Your task to perform on an android device: turn on the 12-hour format for clock Image 0: 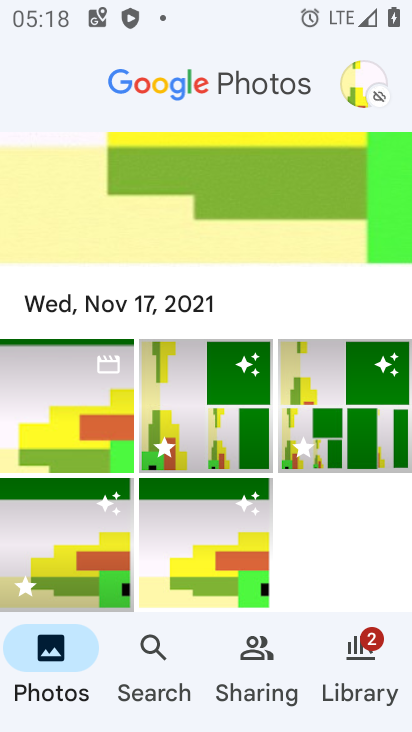
Step 0: press home button
Your task to perform on an android device: turn on the 12-hour format for clock Image 1: 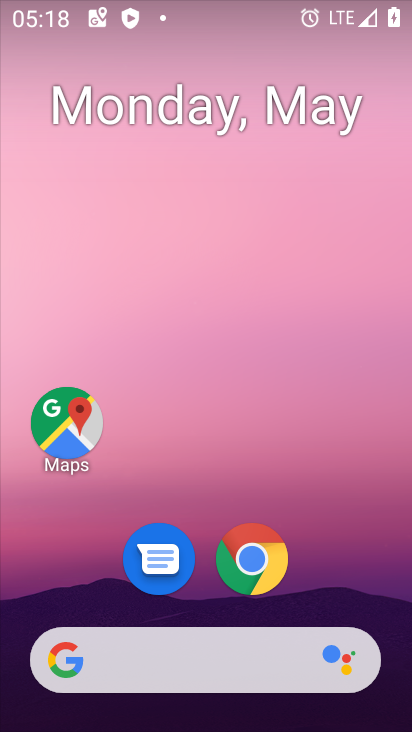
Step 1: drag from (308, 618) to (346, 50)
Your task to perform on an android device: turn on the 12-hour format for clock Image 2: 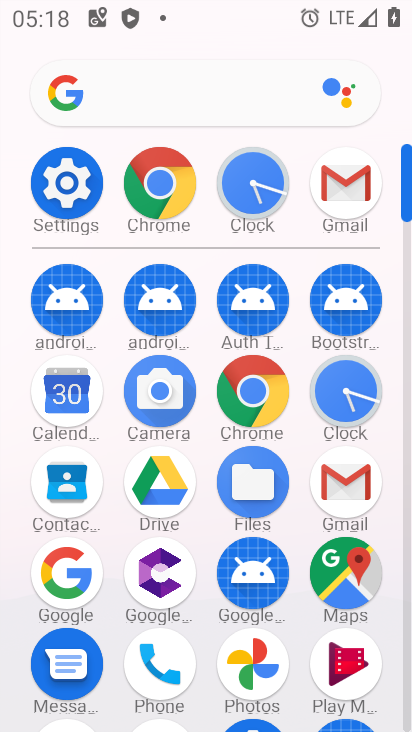
Step 2: click (360, 373)
Your task to perform on an android device: turn on the 12-hour format for clock Image 3: 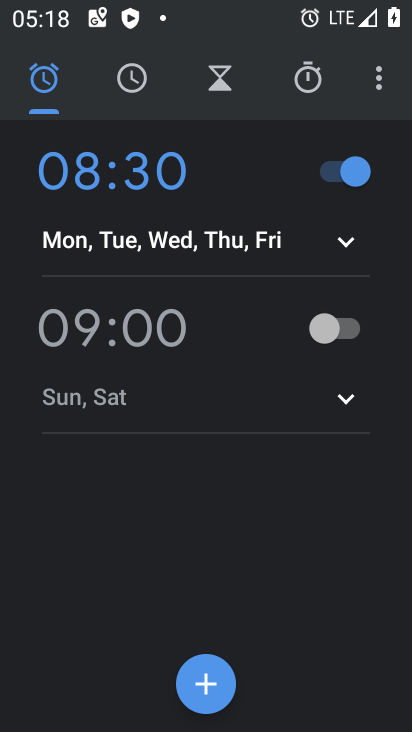
Step 3: click (381, 81)
Your task to perform on an android device: turn on the 12-hour format for clock Image 4: 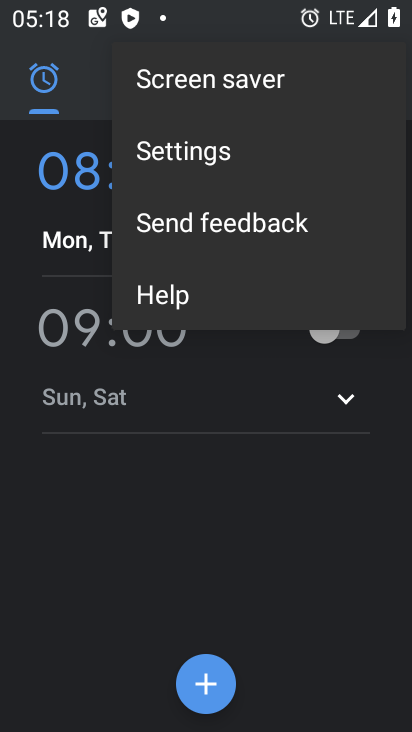
Step 4: click (233, 142)
Your task to perform on an android device: turn on the 12-hour format for clock Image 5: 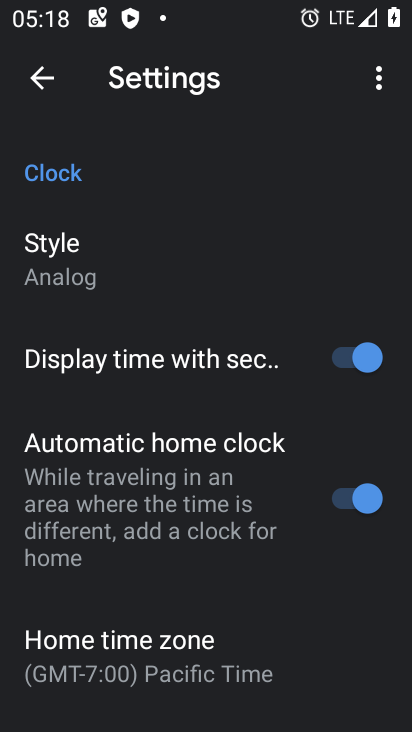
Step 5: drag from (266, 642) to (263, 83)
Your task to perform on an android device: turn on the 12-hour format for clock Image 6: 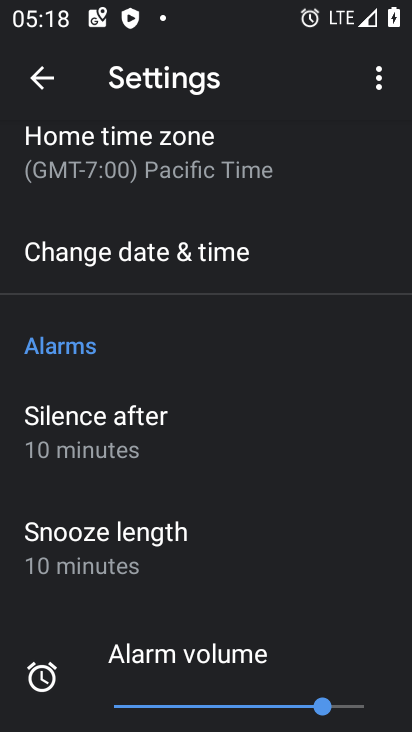
Step 6: click (201, 252)
Your task to perform on an android device: turn on the 12-hour format for clock Image 7: 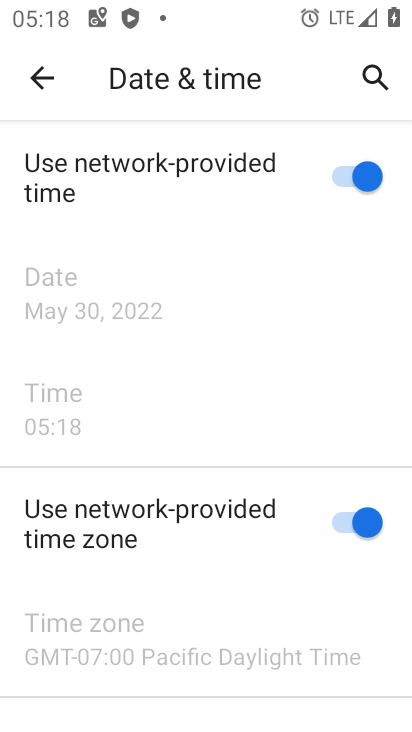
Step 7: drag from (303, 686) to (312, 80)
Your task to perform on an android device: turn on the 12-hour format for clock Image 8: 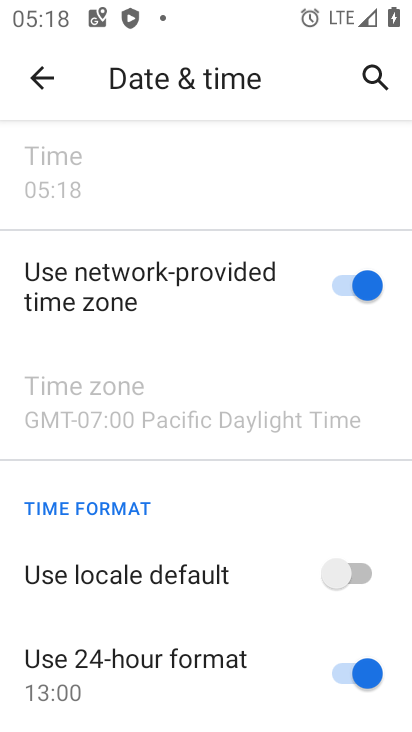
Step 8: drag from (224, 665) to (249, 40)
Your task to perform on an android device: turn on the 12-hour format for clock Image 9: 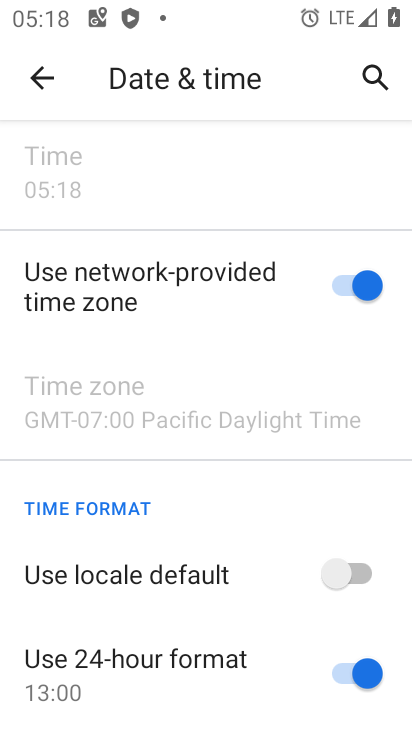
Step 9: click (348, 674)
Your task to perform on an android device: turn on the 12-hour format for clock Image 10: 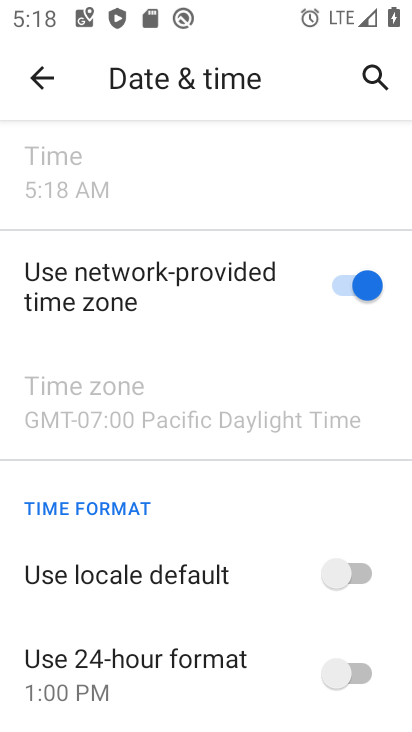
Step 10: task complete